Your task to perform on an android device: toggle location history Image 0: 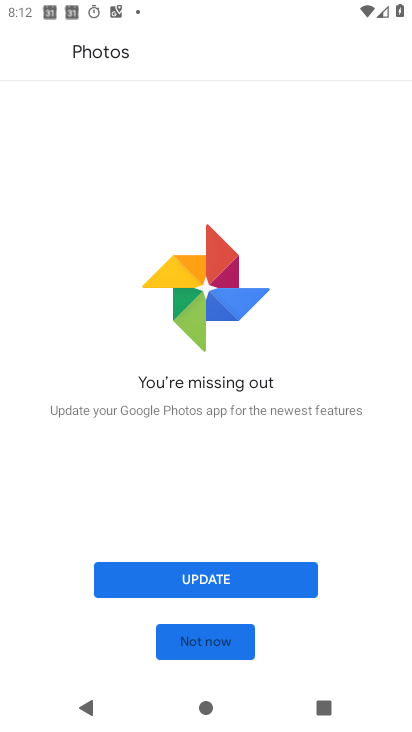
Step 0: press back button
Your task to perform on an android device: toggle location history Image 1: 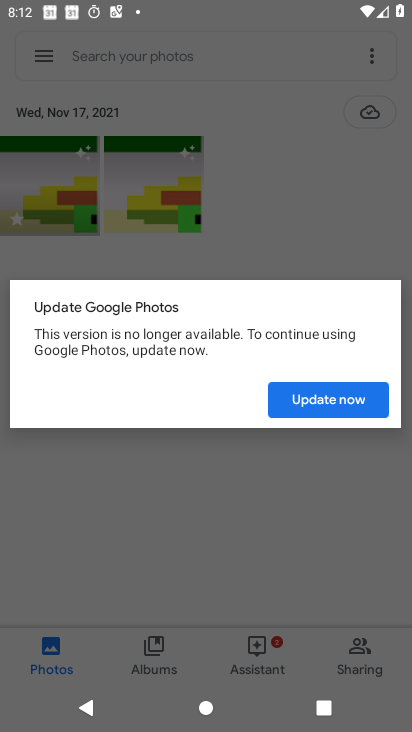
Step 1: press home button
Your task to perform on an android device: toggle location history Image 2: 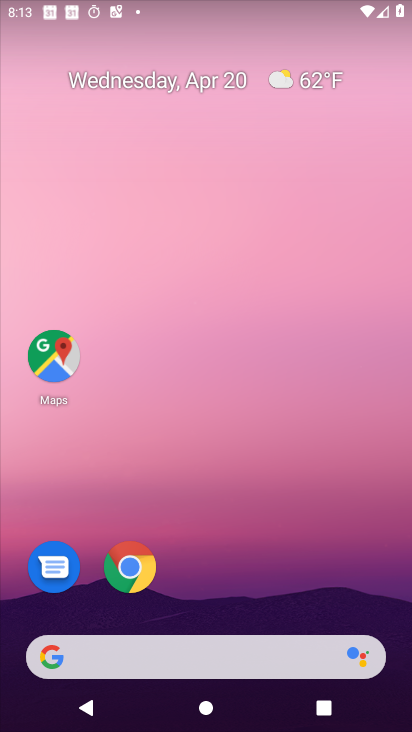
Step 2: drag from (189, 633) to (245, 13)
Your task to perform on an android device: toggle location history Image 3: 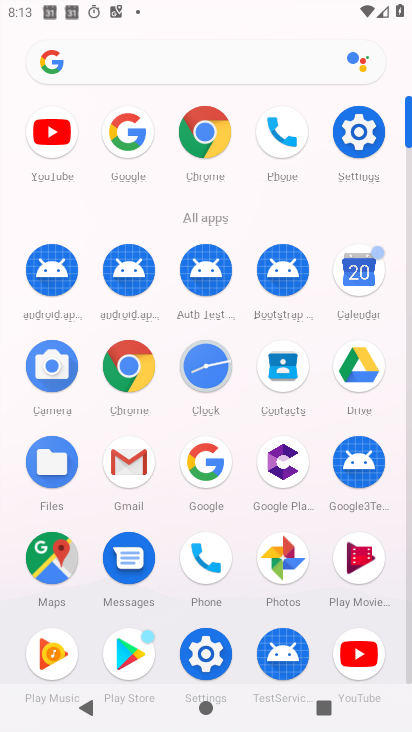
Step 3: click (202, 640)
Your task to perform on an android device: toggle location history Image 4: 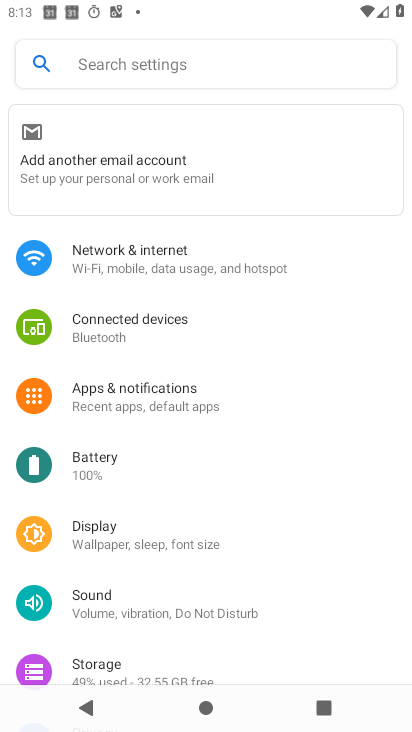
Step 4: drag from (105, 582) to (139, 37)
Your task to perform on an android device: toggle location history Image 5: 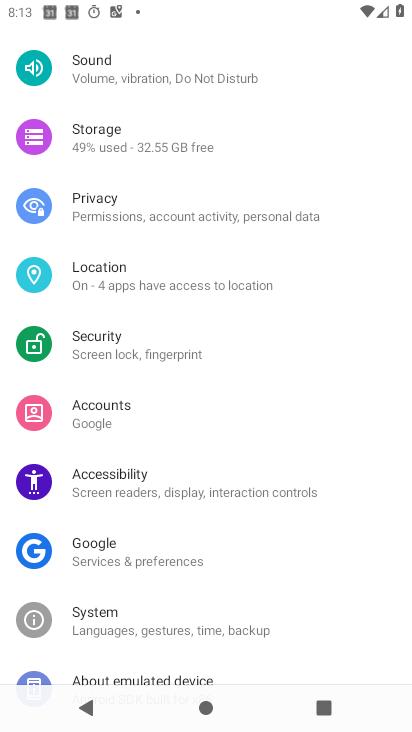
Step 5: click (104, 277)
Your task to perform on an android device: toggle location history Image 6: 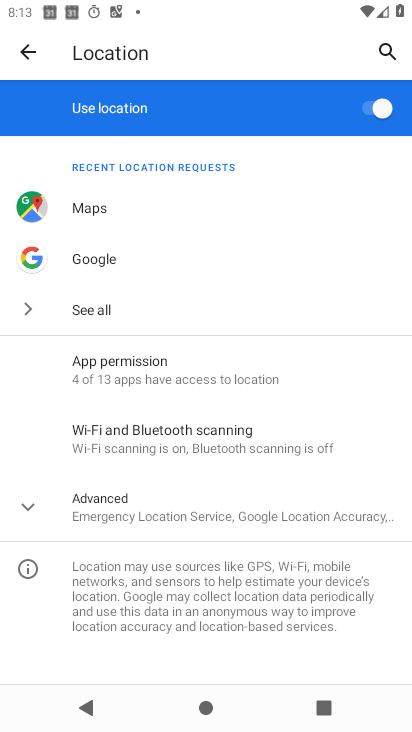
Step 6: click (116, 490)
Your task to perform on an android device: toggle location history Image 7: 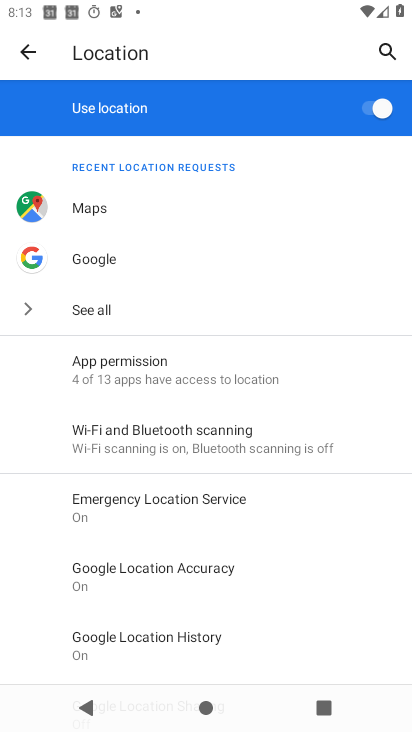
Step 7: click (162, 635)
Your task to perform on an android device: toggle location history Image 8: 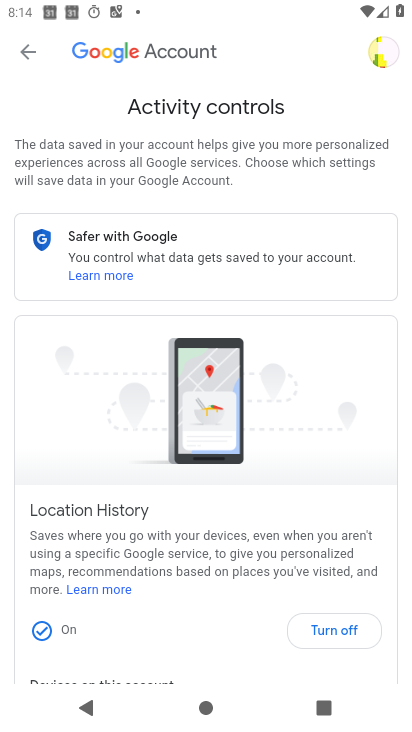
Step 8: click (320, 638)
Your task to perform on an android device: toggle location history Image 9: 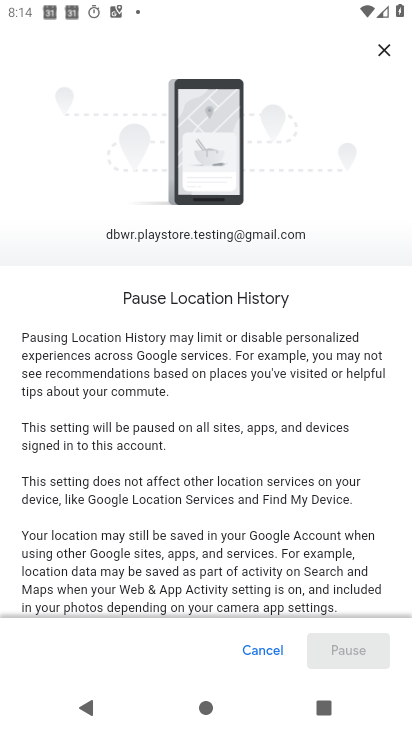
Step 9: drag from (281, 510) to (315, 52)
Your task to perform on an android device: toggle location history Image 10: 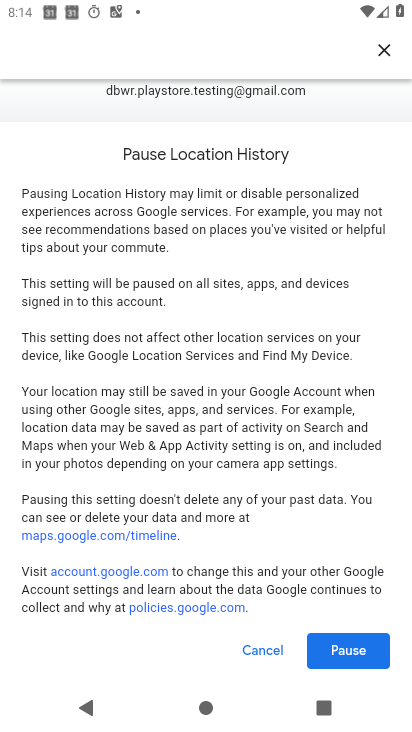
Step 10: click (369, 652)
Your task to perform on an android device: toggle location history Image 11: 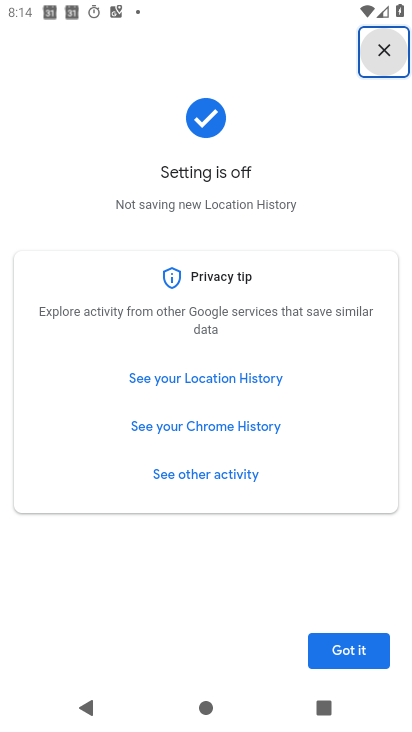
Step 11: click (369, 652)
Your task to perform on an android device: toggle location history Image 12: 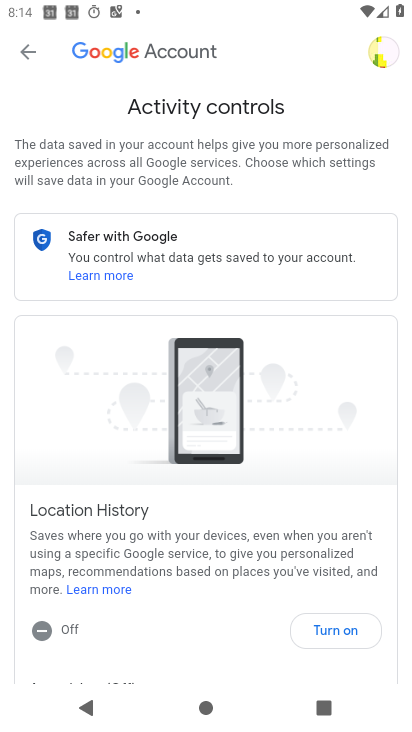
Step 12: task complete